Your task to perform on an android device: What's the weather? Image 0: 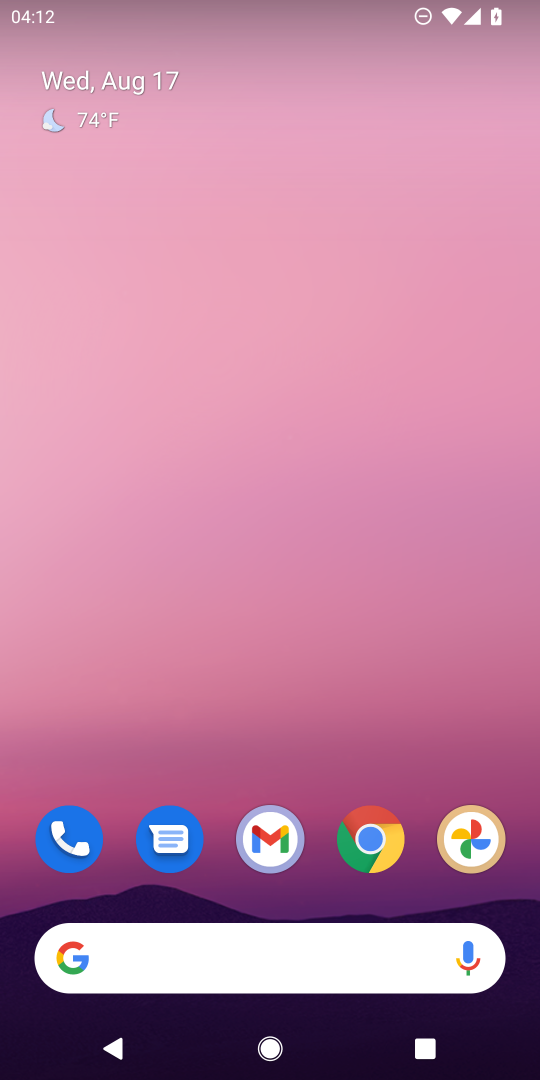
Step 0: click (53, 123)
Your task to perform on an android device: What's the weather? Image 1: 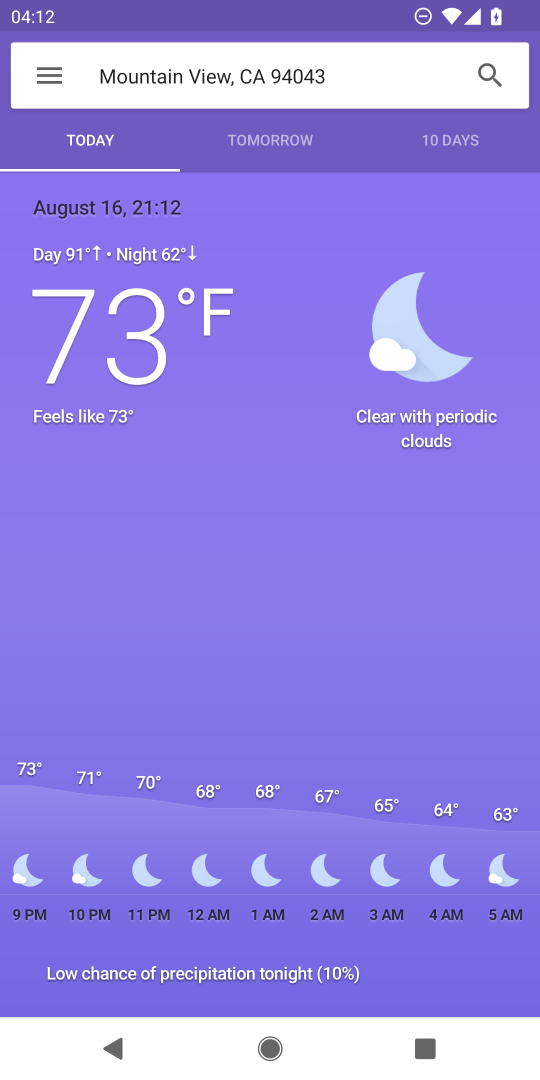
Step 1: task complete